Your task to perform on an android device: Open the Play Movies app and select the watchlist tab. Image 0: 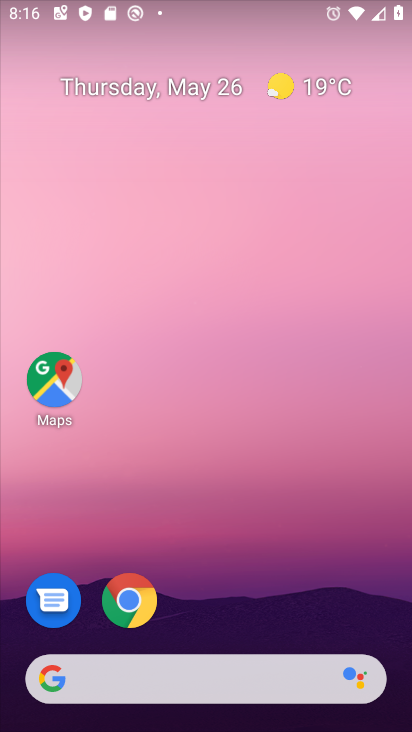
Step 0: drag from (260, 642) to (252, 239)
Your task to perform on an android device: Open the Play Movies app and select the watchlist tab. Image 1: 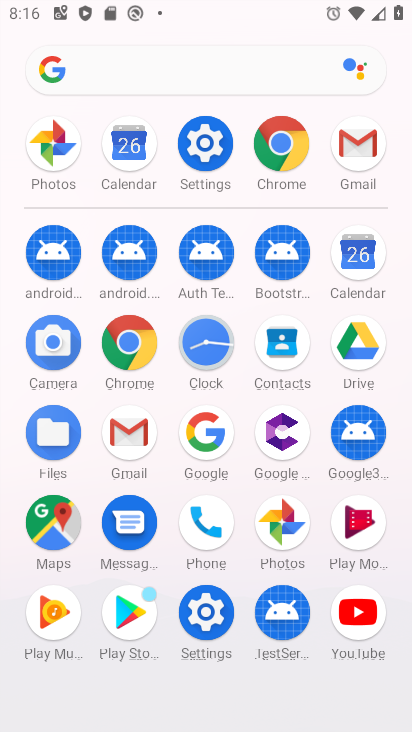
Step 1: click (364, 529)
Your task to perform on an android device: Open the Play Movies app and select the watchlist tab. Image 2: 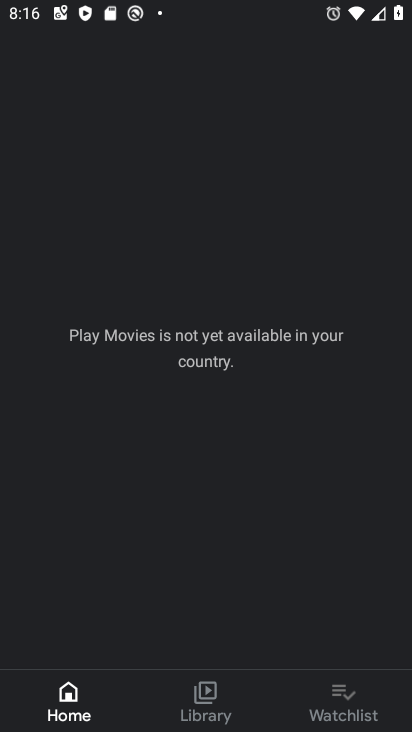
Step 2: click (350, 702)
Your task to perform on an android device: Open the Play Movies app and select the watchlist tab. Image 3: 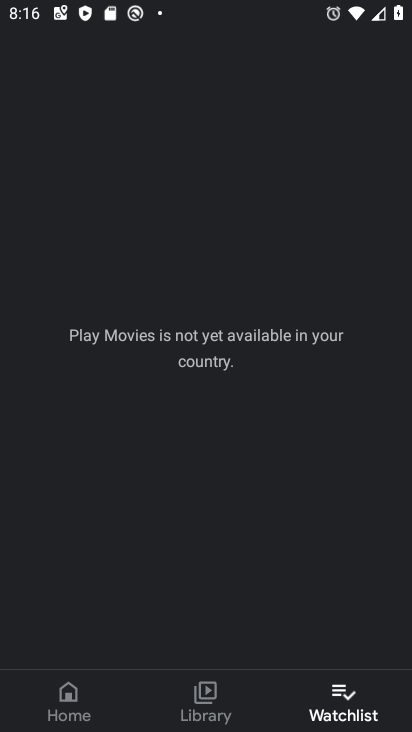
Step 3: task complete